Your task to perform on an android device: find photos in the google photos app Image 0: 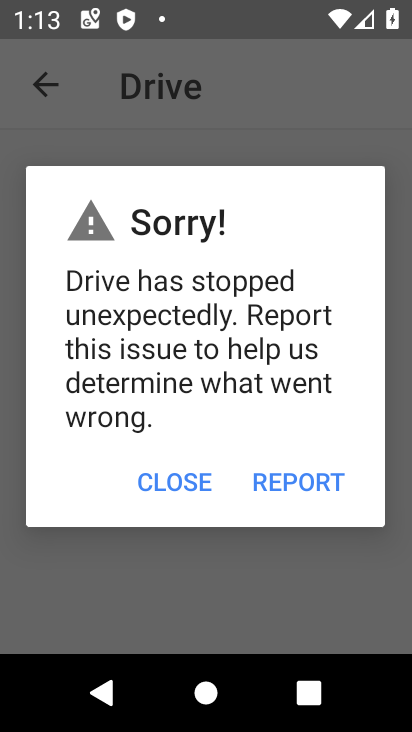
Step 0: press home button
Your task to perform on an android device: find photos in the google photos app Image 1: 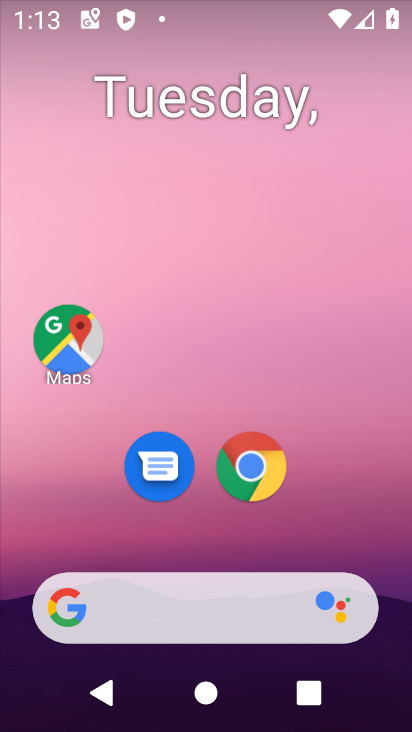
Step 1: drag from (129, 392) to (204, 44)
Your task to perform on an android device: find photos in the google photos app Image 2: 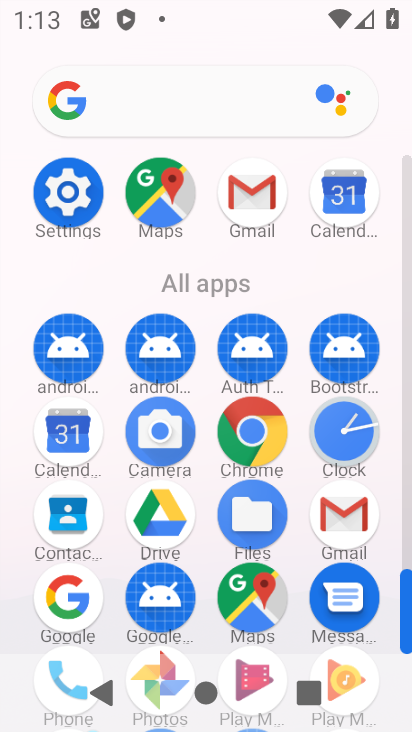
Step 2: drag from (399, 625) to (404, 691)
Your task to perform on an android device: find photos in the google photos app Image 3: 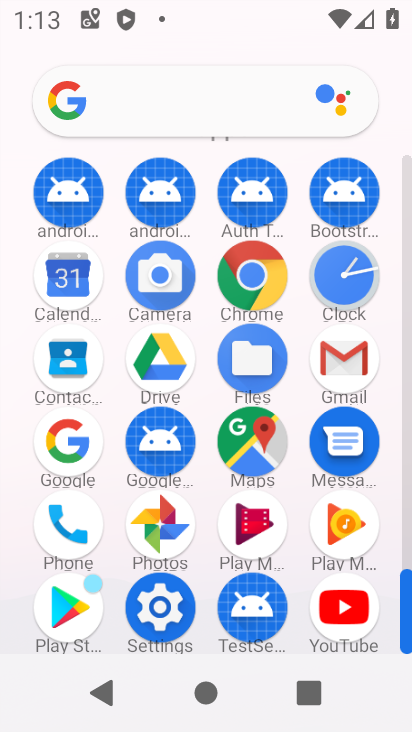
Step 3: click (142, 526)
Your task to perform on an android device: find photos in the google photos app Image 4: 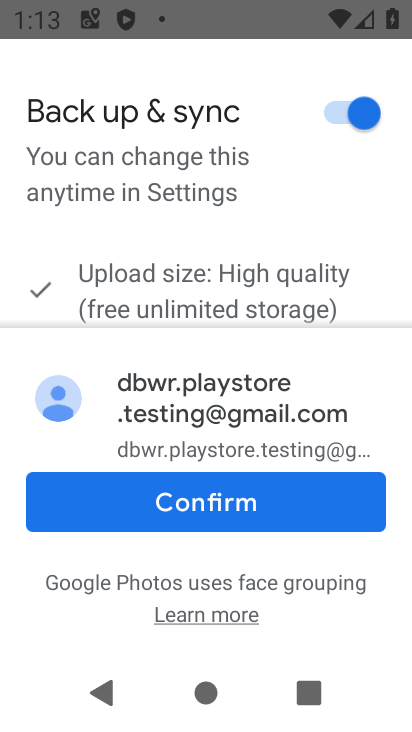
Step 4: click (173, 509)
Your task to perform on an android device: find photos in the google photos app Image 5: 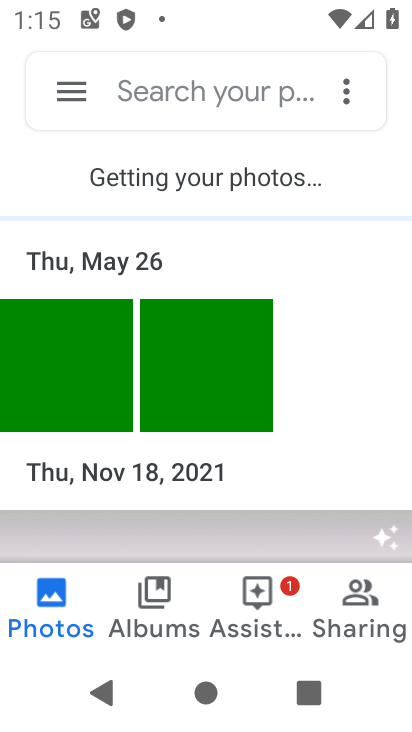
Step 5: task complete